Your task to perform on an android device: Open network settings Image 0: 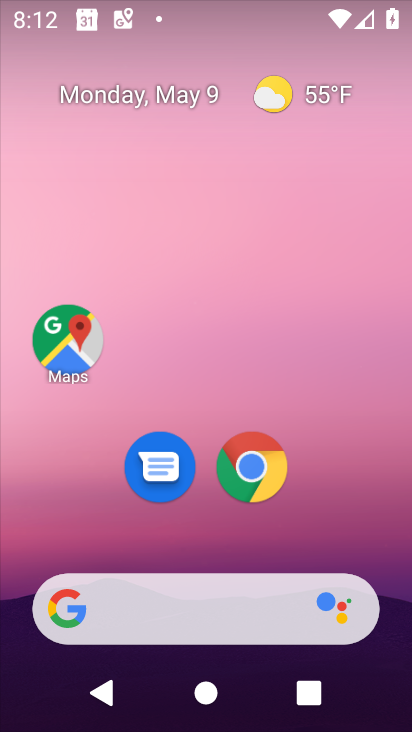
Step 0: drag from (369, 554) to (342, 11)
Your task to perform on an android device: Open network settings Image 1: 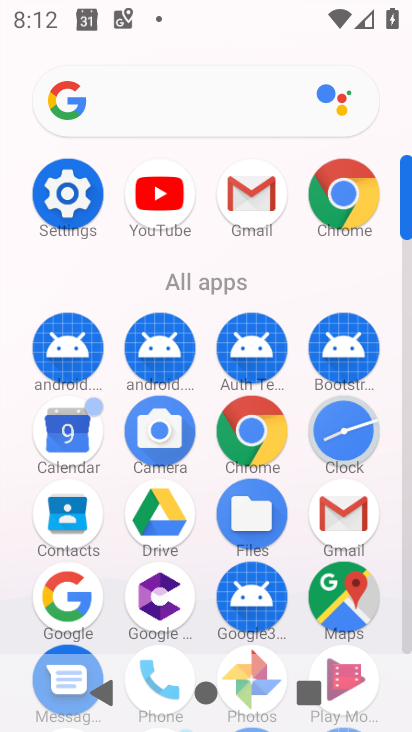
Step 1: click (64, 196)
Your task to perform on an android device: Open network settings Image 2: 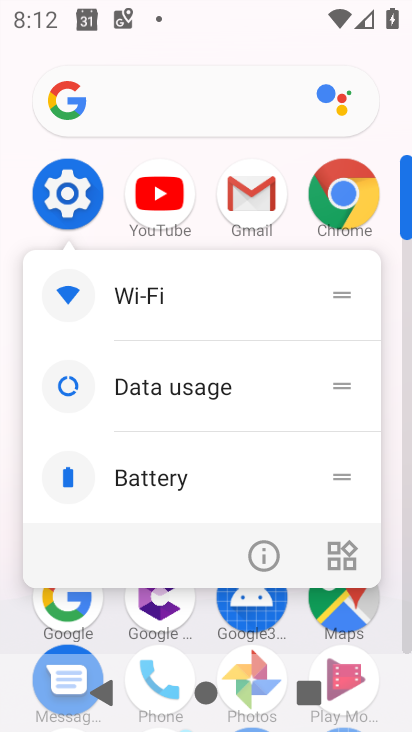
Step 2: click (64, 195)
Your task to perform on an android device: Open network settings Image 3: 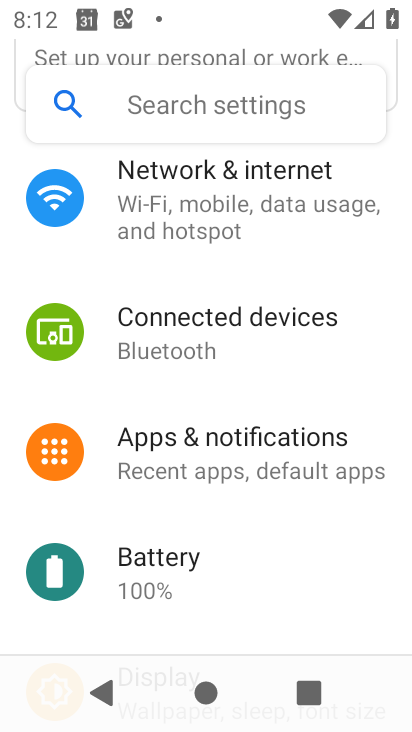
Step 3: click (212, 201)
Your task to perform on an android device: Open network settings Image 4: 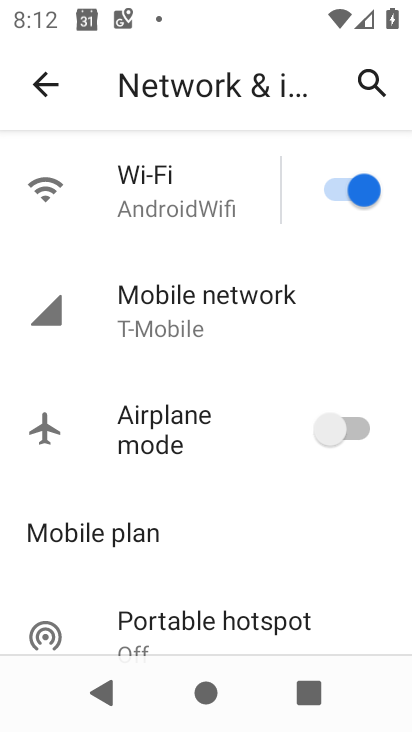
Step 4: click (155, 294)
Your task to perform on an android device: Open network settings Image 5: 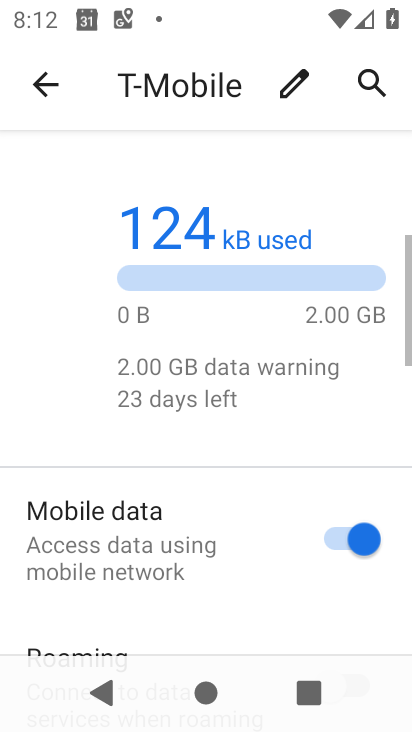
Step 5: drag from (192, 532) to (182, 47)
Your task to perform on an android device: Open network settings Image 6: 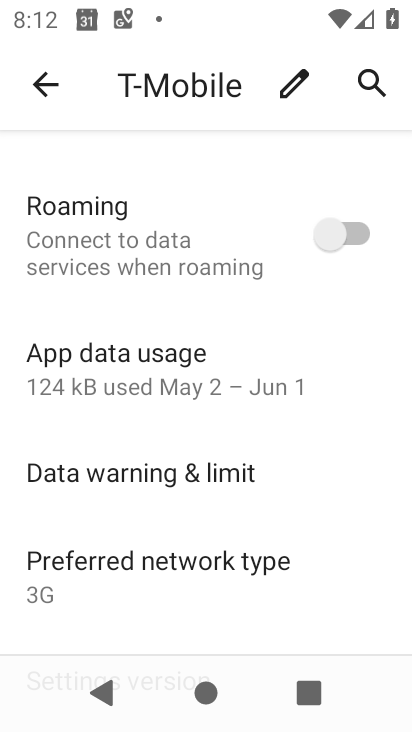
Step 6: drag from (169, 585) to (175, 225)
Your task to perform on an android device: Open network settings Image 7: 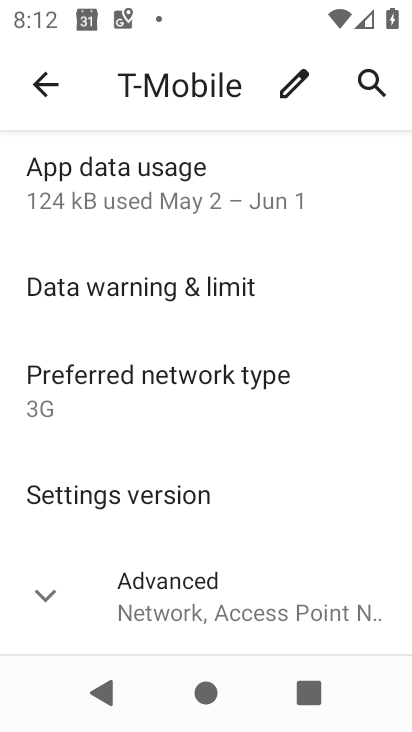
Step 7: click (46, 606)
Your task to perform on an android device: Open network settings Image 8: 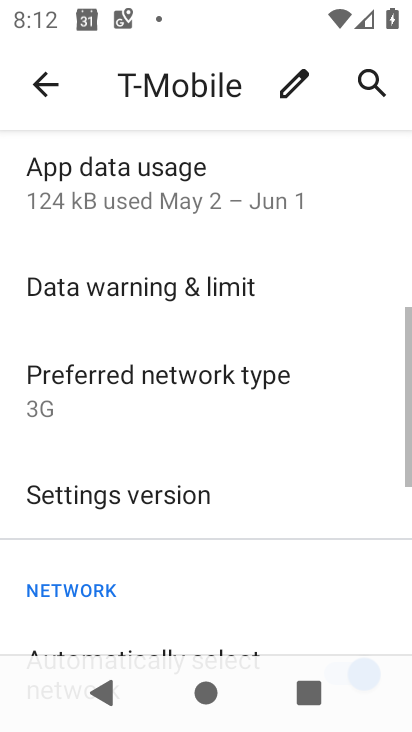
Step 8: task complete